Your task to perform on an android device: Go to CNN.com Image 0: 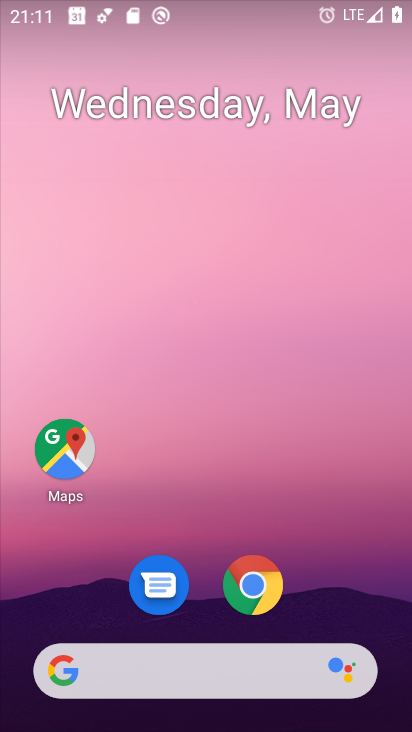
Step 0: click (259, 673)
Your task to perform on an android device: Go to CNN.com Image 1: 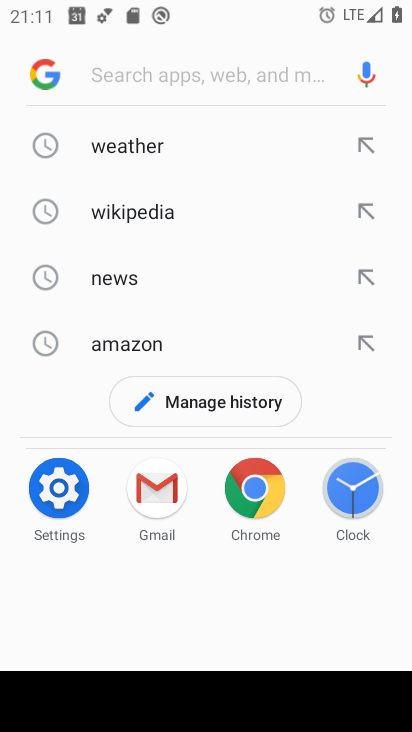
Step 1: type "cnn.com"
Your task to perform on an android device: Go to CNN.com Image 2: 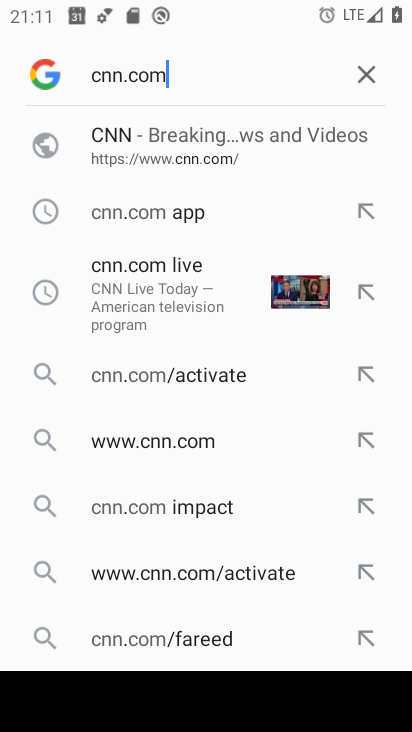
Step 2: click (103, 123)
Your task to perform on an android device: Go to CNN.com Image 3: 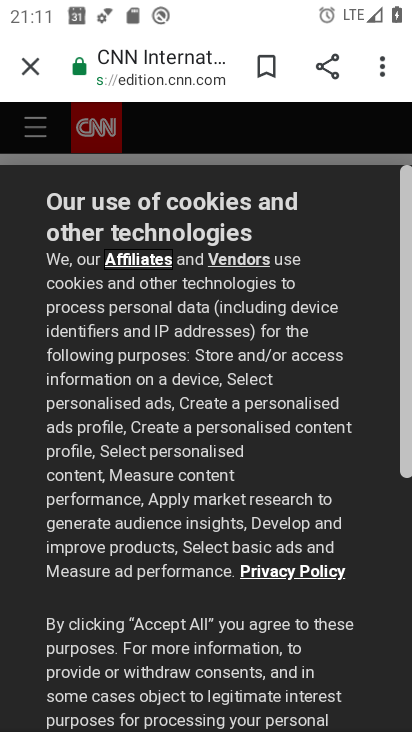
Step 3: task complete